Your task to perform on an android device: Add usb-c to the cart on walmart.com Image 0: 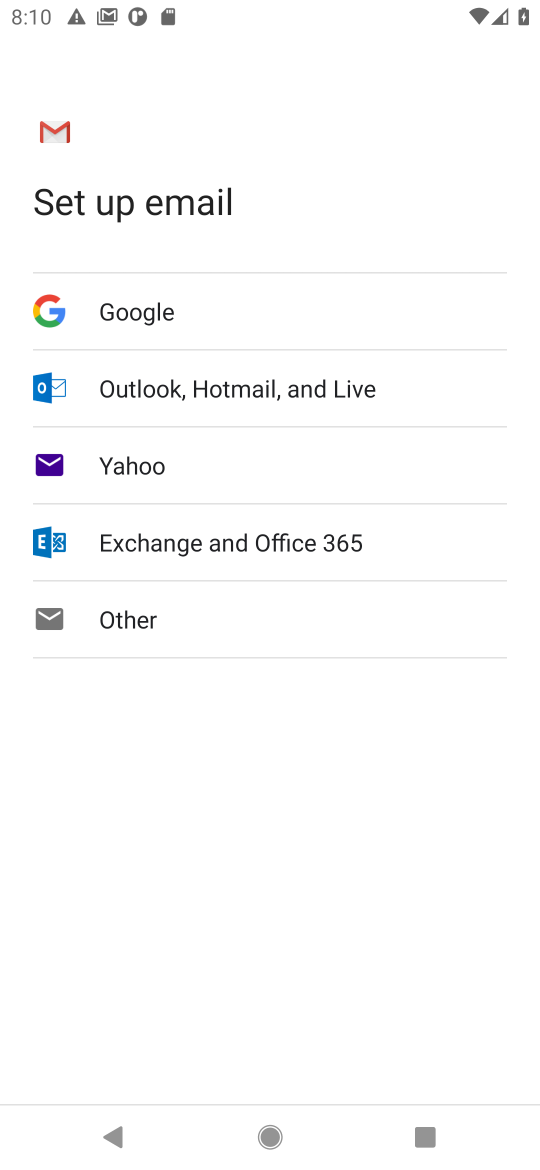
Step 0: press home button
Your task to perform on an android device: Add usb-c to the cart on walmart.com Image 1: 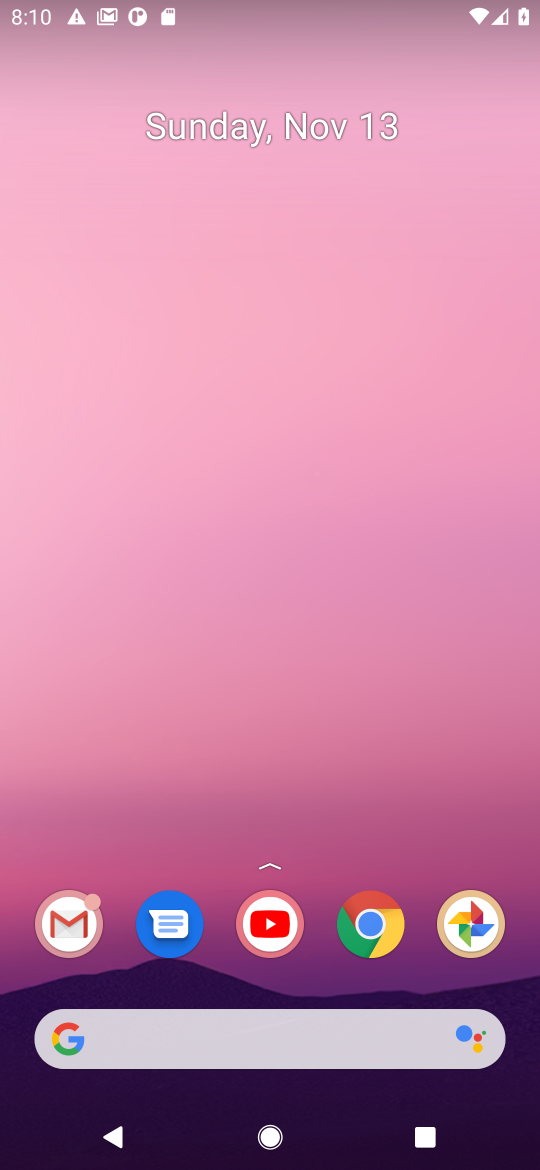
Step 1: click (368, 935)
Your task to perform on an android device: Add usb-c to the cart on walmart.com Image 2: 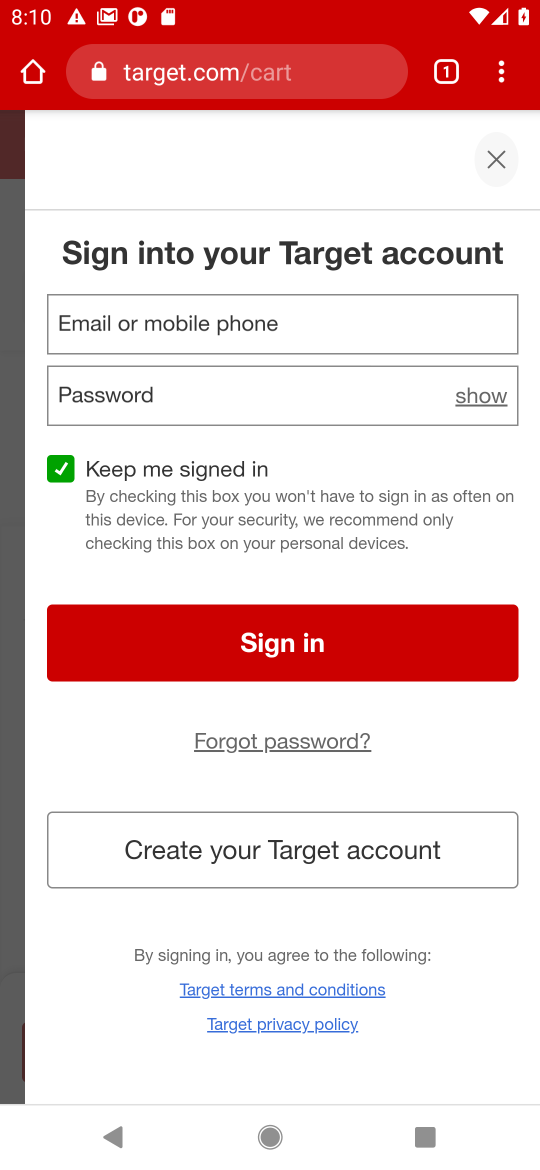
Step 2: click (222, 81)
Your task to perform on an android device: Add usb-c to the cart on walmart.com Image 3: 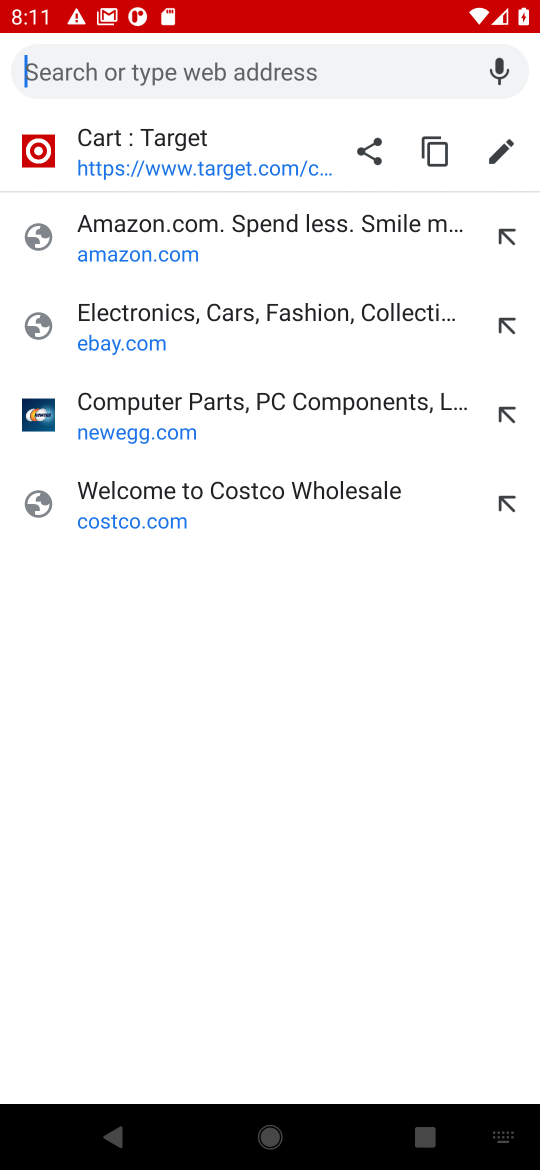
Step 3: type "walmart.com"
Your task to perform on an android device: Add usb-c to the cart on walmart.com Image 4: 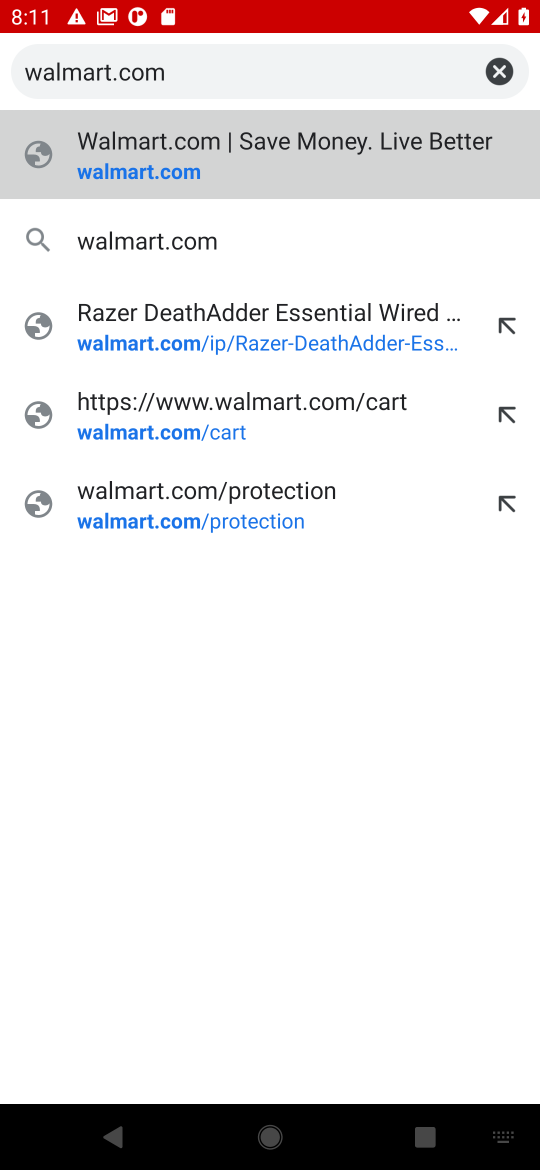
Step 4: click (182, 159)
Your task to perform on an android device: Add usb-c to the cart on walmart.com Image 5: 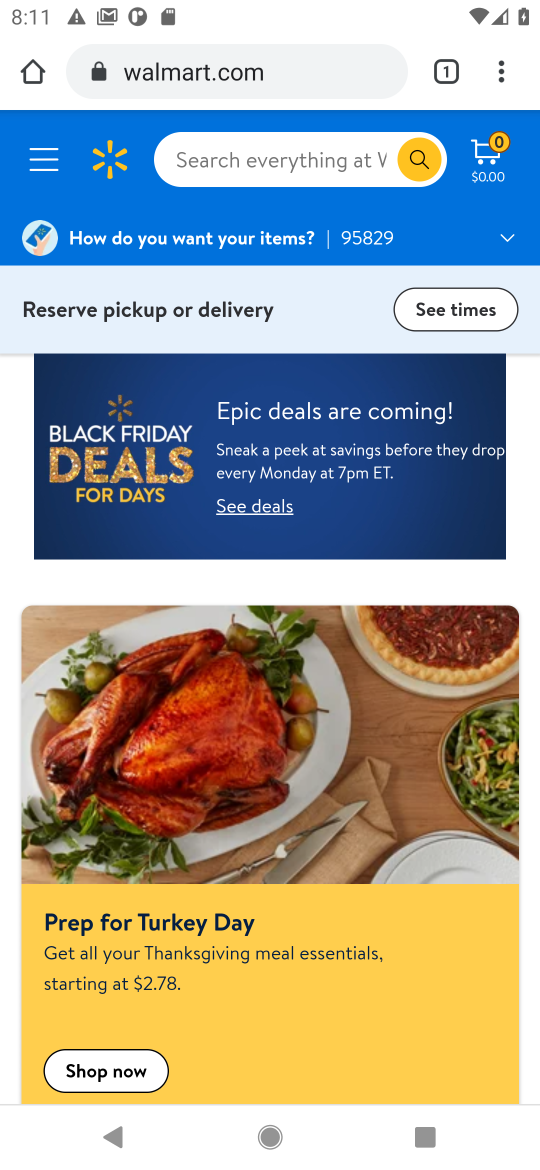
Step 5: click (217, 169)
Your task to perform on an android device: Add usb-c to the cart on walmart.com Image 6: 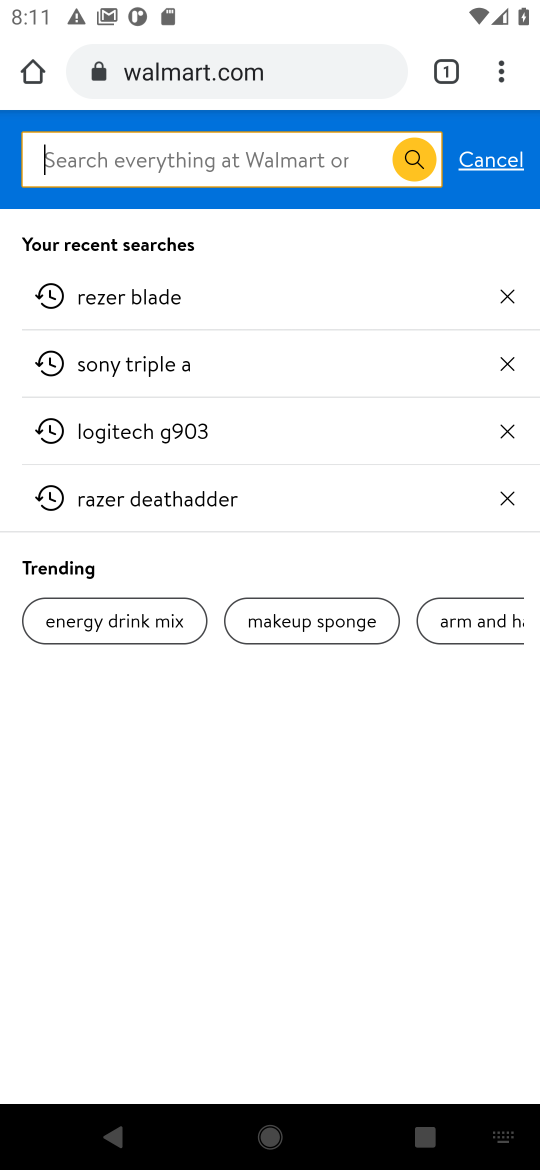
Step 6: type "usb-c"
Your task to perform on an android device: Add usb-c to the cart on walmart.com Image 7: 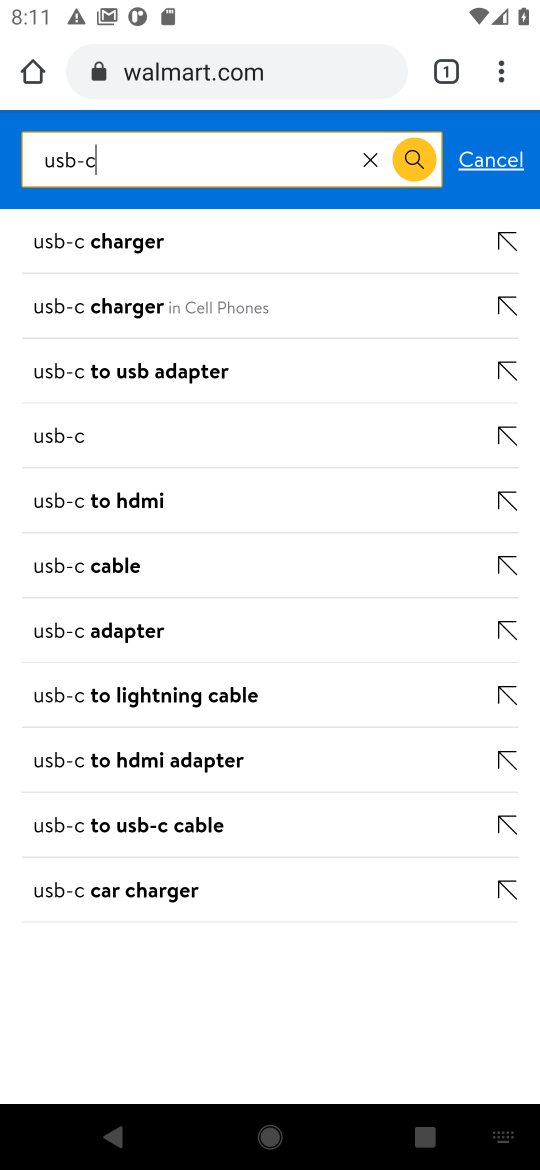
Step 7: click (15, 453)
Your task to perform on an android device: Add usb-c to the cart on walmart.com Image 8: 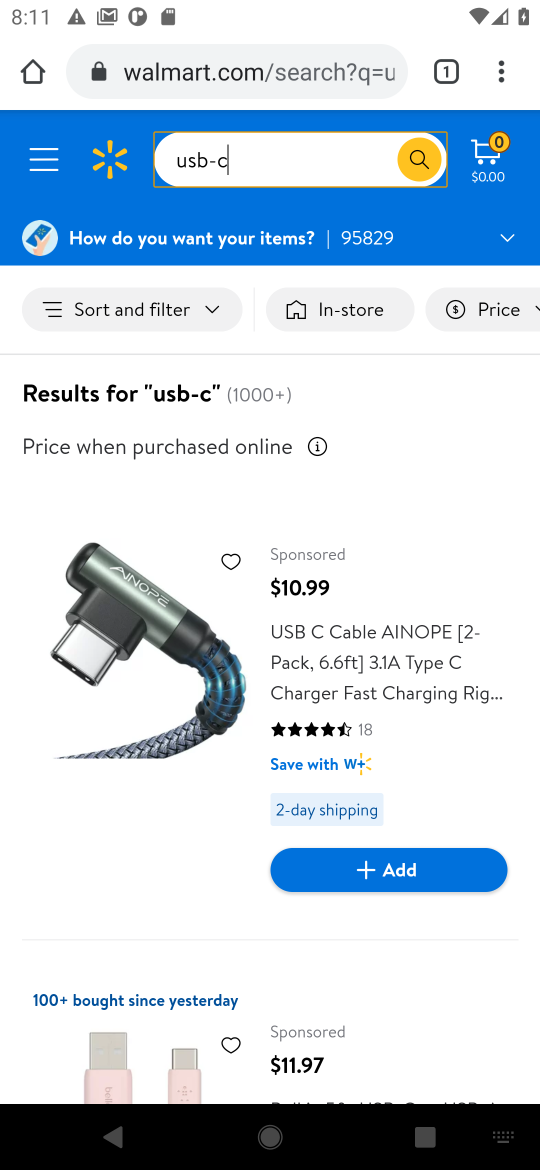
Step 8: click (372, 880)
Your task to perform on an android device: Add usb-c to the cart on walmart.com Image 9: 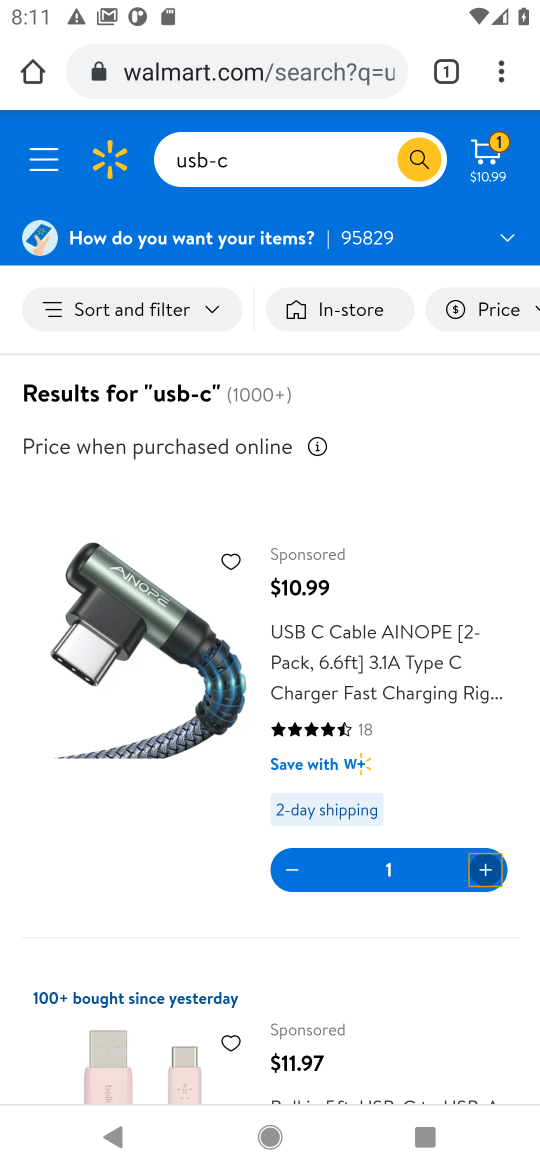
Step 9: click (494, 153)
Your task to perform on an android device: Add usb-c to the cart on walmart.com Image 10: 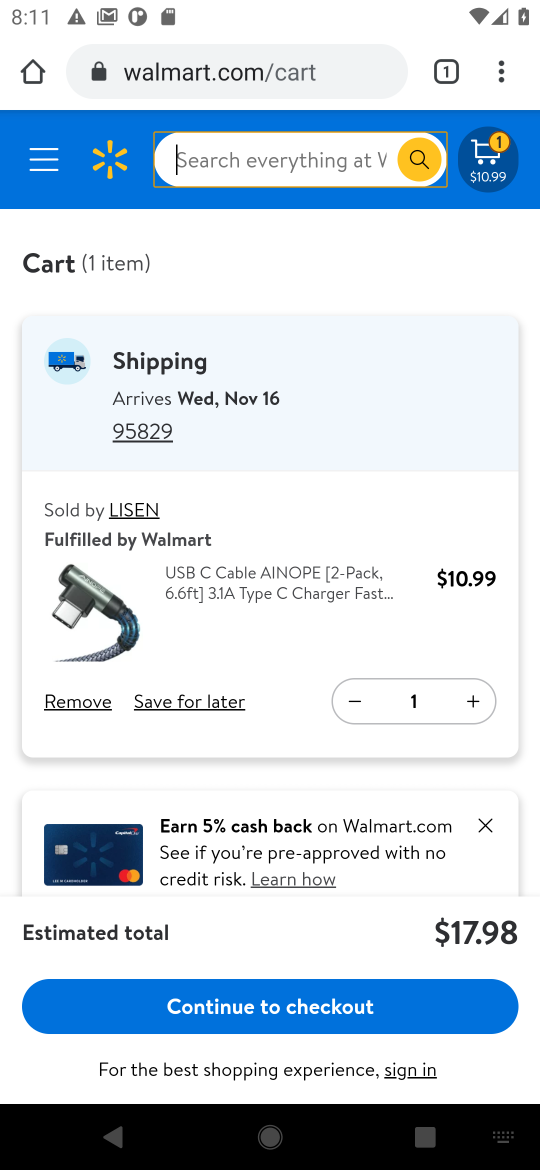
Step 10: task complete